Your task to perform on an android device: Do I have any events today? Image 0: 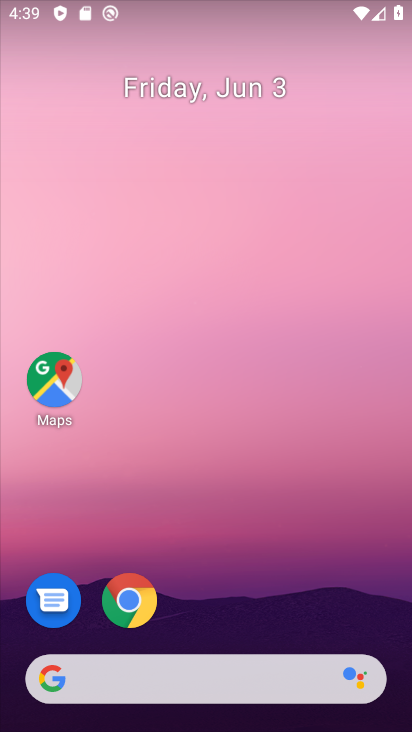
Step 0: drag from (206, 613) to (386, 8)
Your task to perform on an android device: Do I have any events today? Image 1: 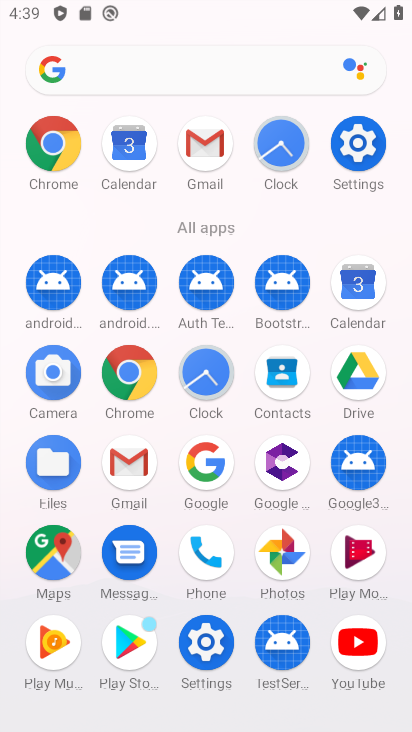
Step 1: click (363, 310)
Your task to perform on an android device: Do I have any events today? Image 2: 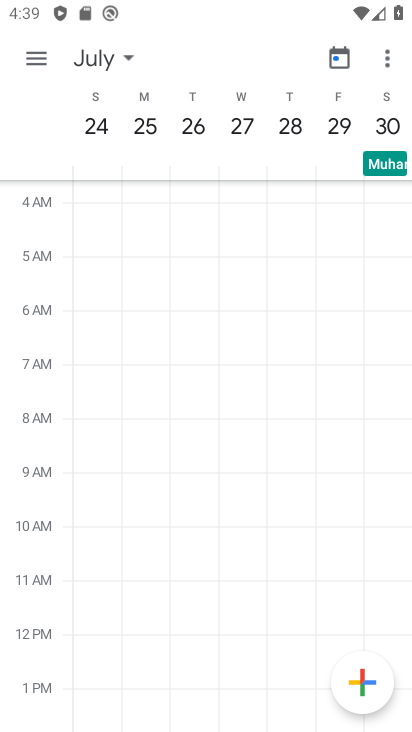
Step 2: click (94, 56)
Your task to perform on an android device: Do I have any events today? Image 3: 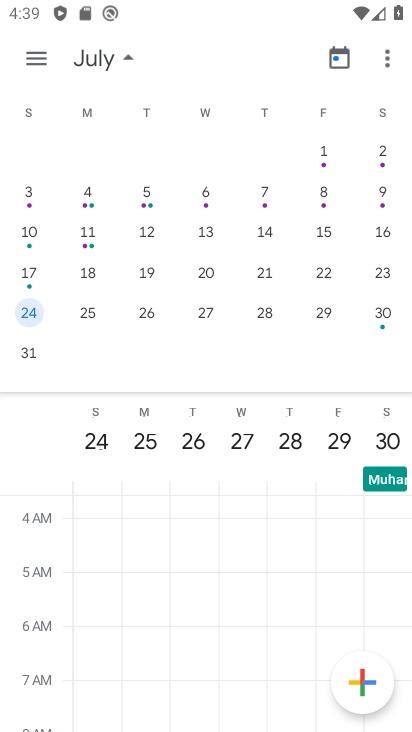
Step 3: drag from (70, 228) to (411, 191)
Your task to perform on an android device: Do I have any events today? Image 4: 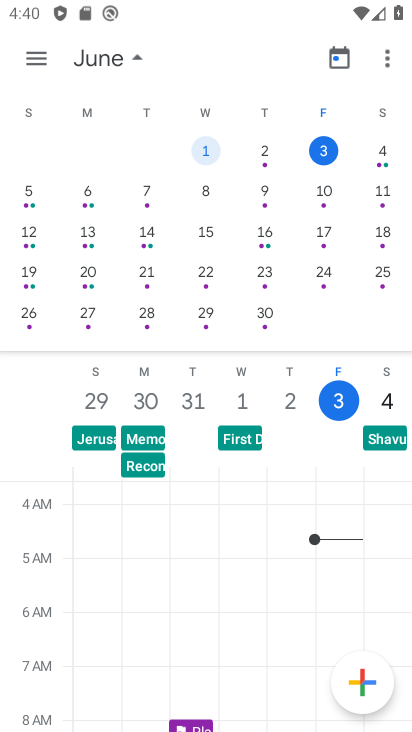
Step 4: click (328, 157)
Your task to perform on an android device: Do I have any events today? Image 5: 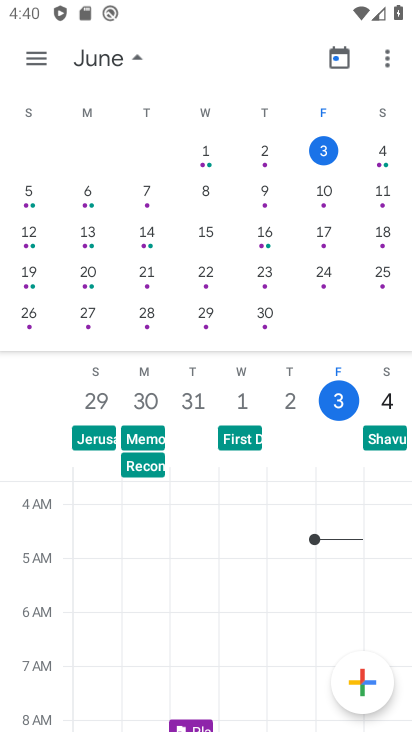
Step 5: click (30, 52)
Your task to perform on an android device: Do I have any events today? Image 6: 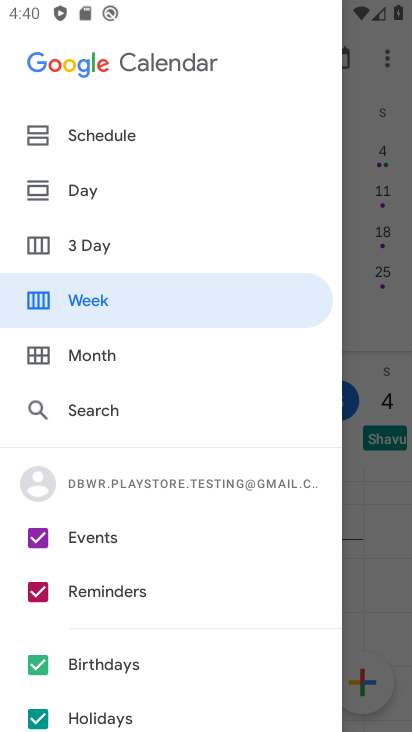
Step 6: click (98, 194)
Your task to perform on an android device: Do I have any events today? Image 7: 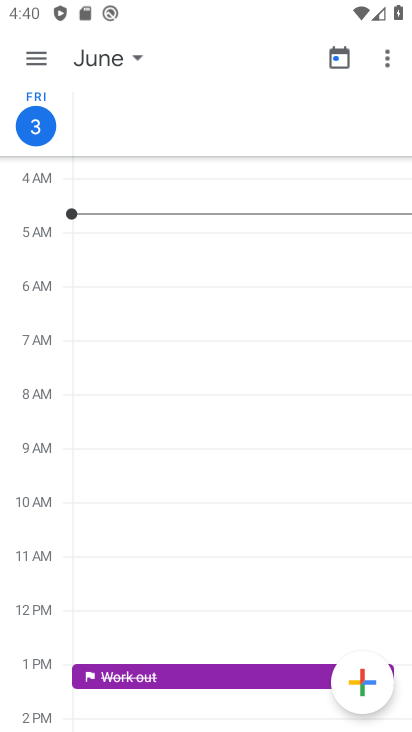
Step 7: task complete